Your task to perform on an android device: change the clock display to digital Image 0: 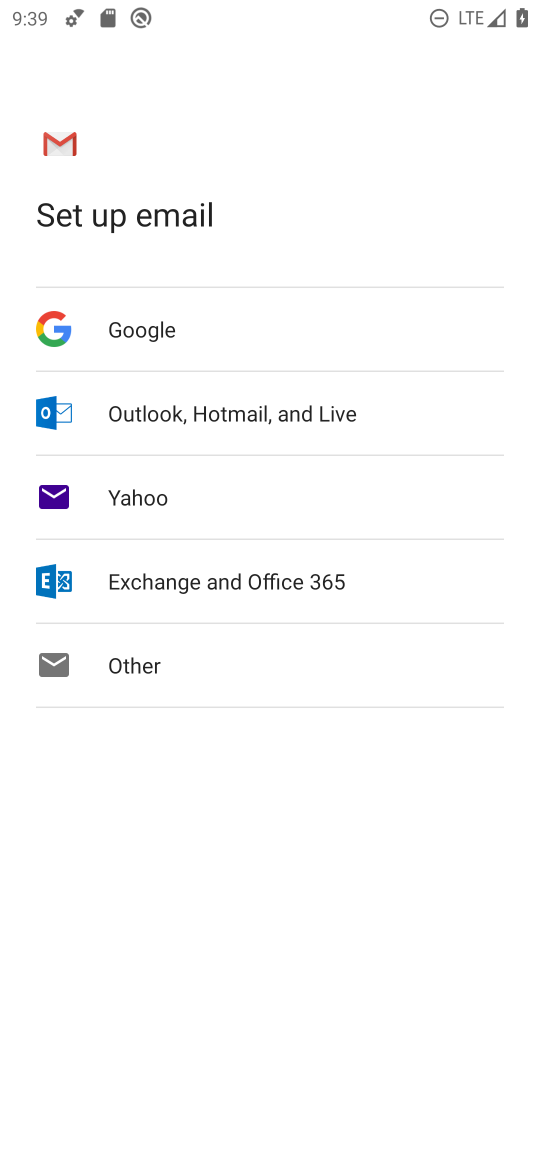
Step 0: press home button
Your task to perform on an android device: change the clock display to digital Image 1: 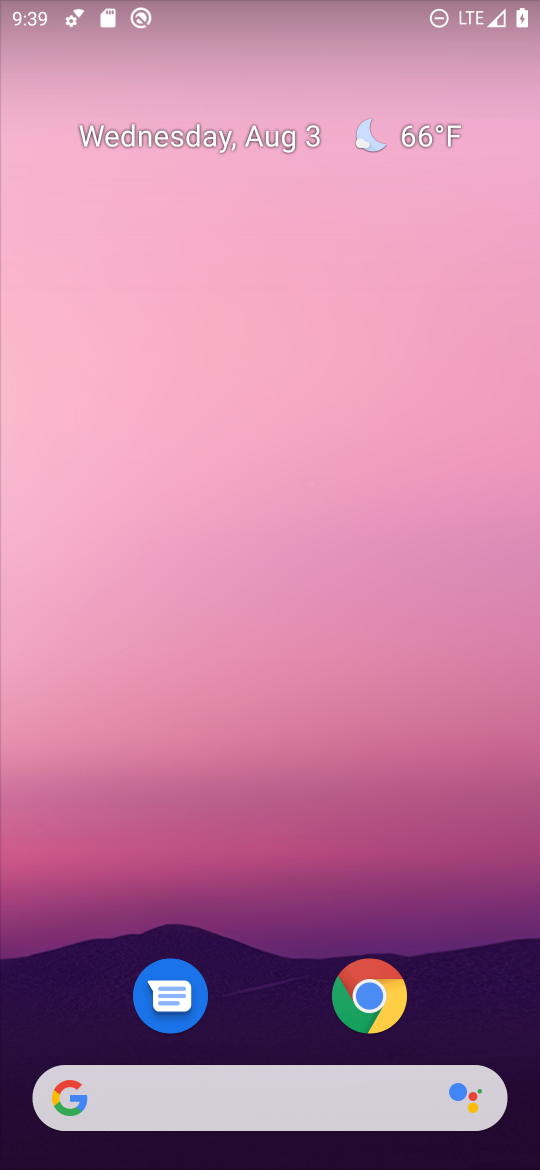
Step 1: drag from (263, 874) to (229, 29)
Your task to perform on an android device: change the clock display to digital Image 2: 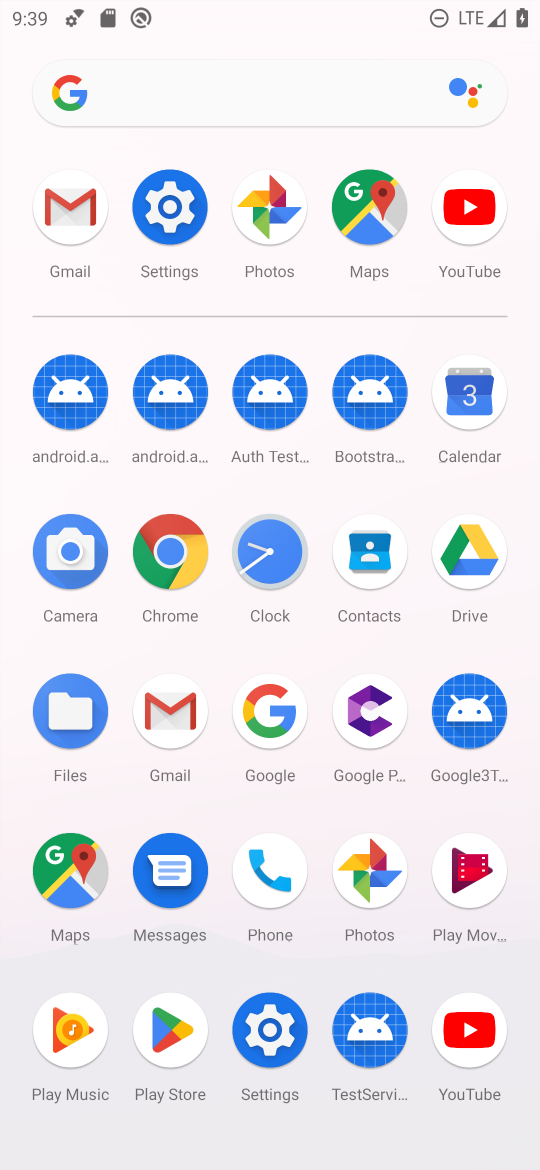
Step 2: click (269, 546)
Your task to perform on an android device: change the clock display to digital Image 3: 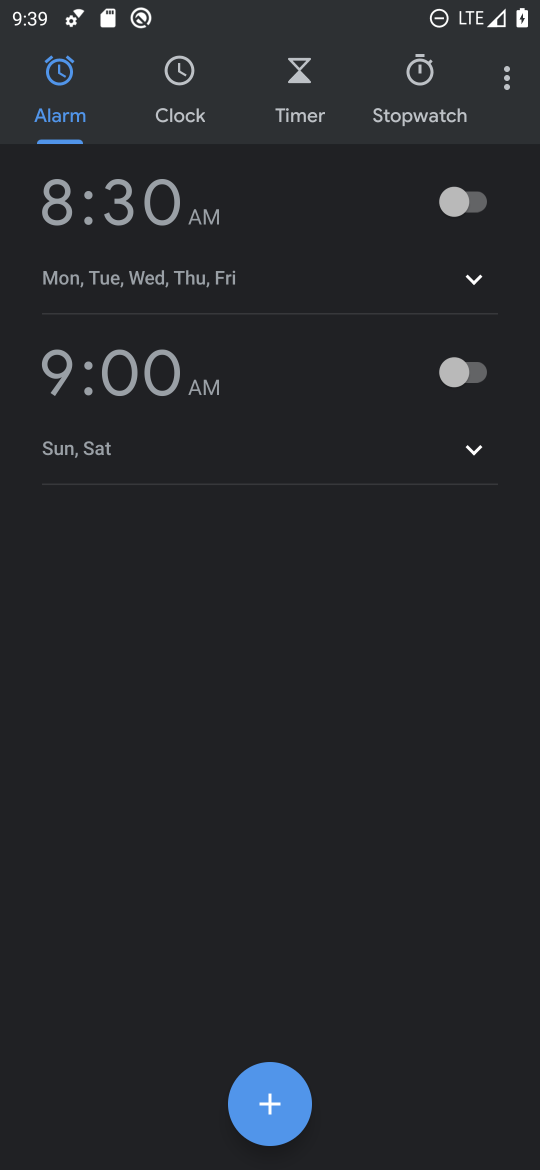
Step 3: click (185, 71)
Your task to perform on an android device: change the clock display to digital Image 4: 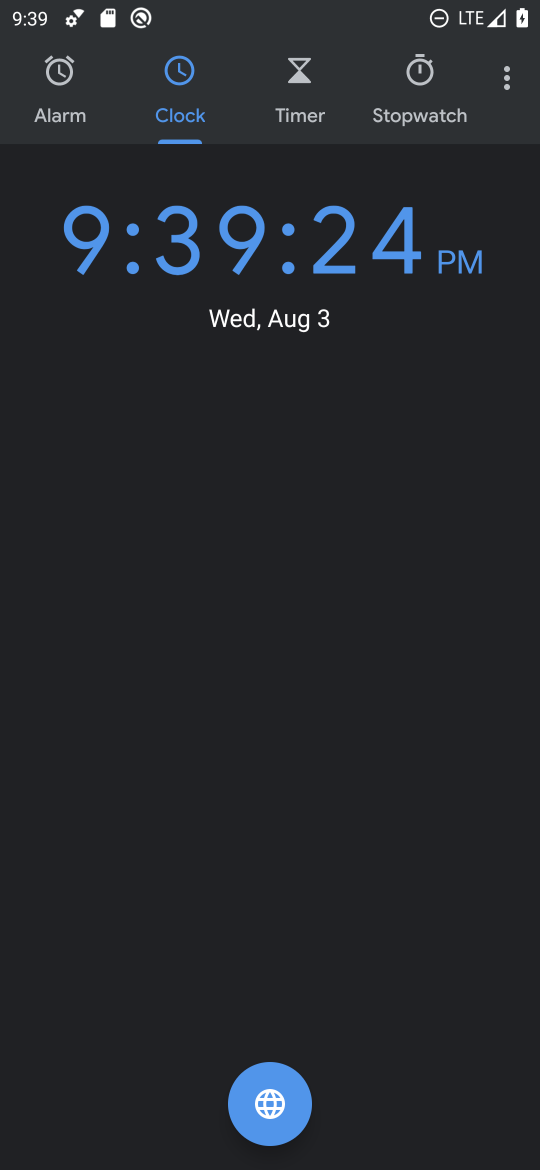
Step 4: task complete